Your task to perform on an android device: change keyboard looks Image 0: 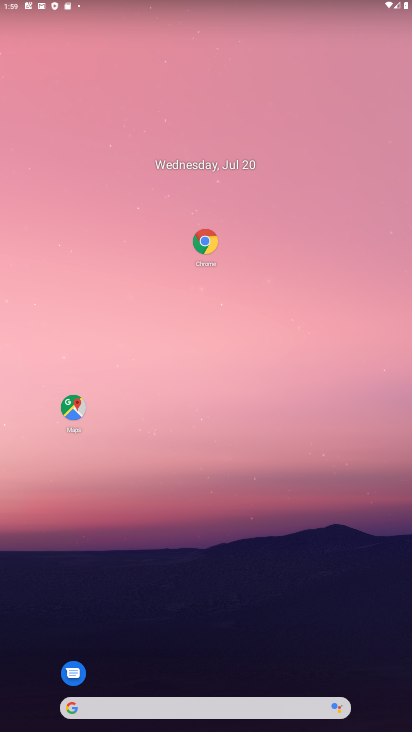
Step 0: drag from (188, 642) to (225, 76)
Your task to perform on an android device: change keyboard looks Image 1: 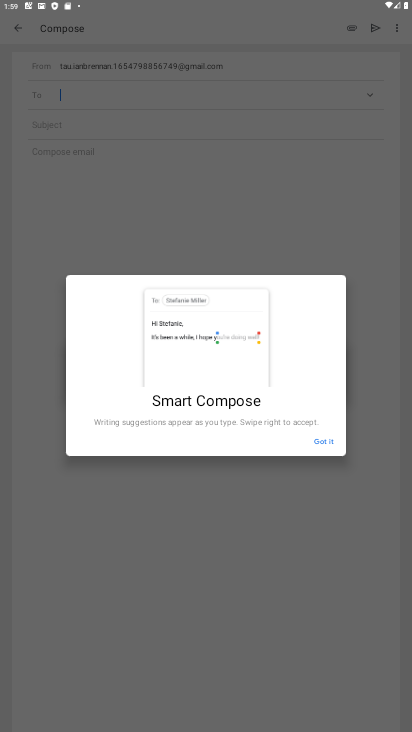
Step 1: press home button
Your task to perform on an android device: change keyboard looks Image 2: 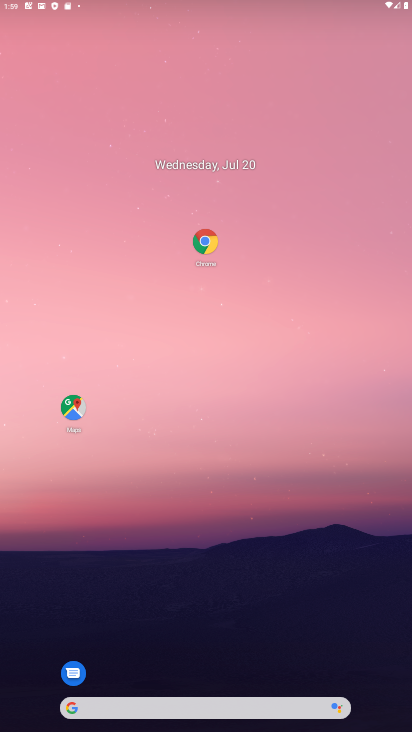
Step 2: drag from (240, 635) to (250, 68)
Your task to perform on an android device: change keyboard looks Image 3: 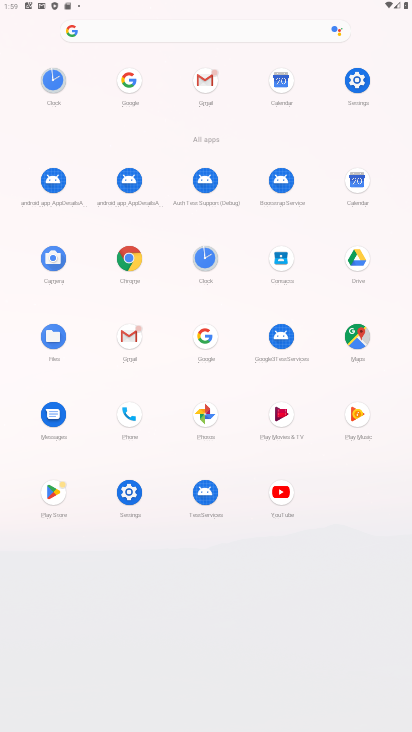
Step 3: click (354, 79)
Your task to perform on an android device: change keyboard looks Image 4: 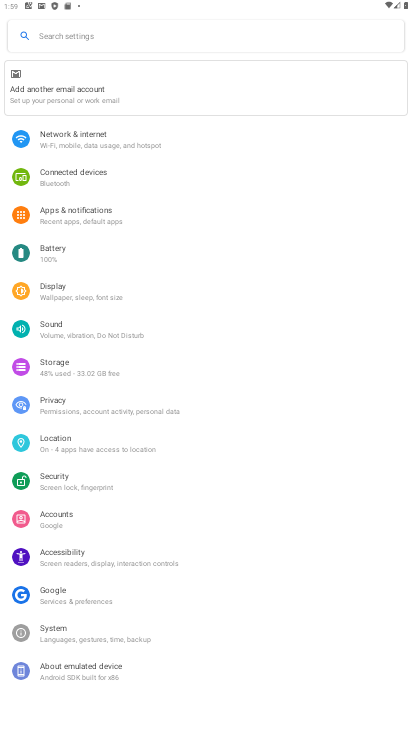
Step 4: click (36, 644)
Your task to perform on an android device: change keyboard looks Image 5: 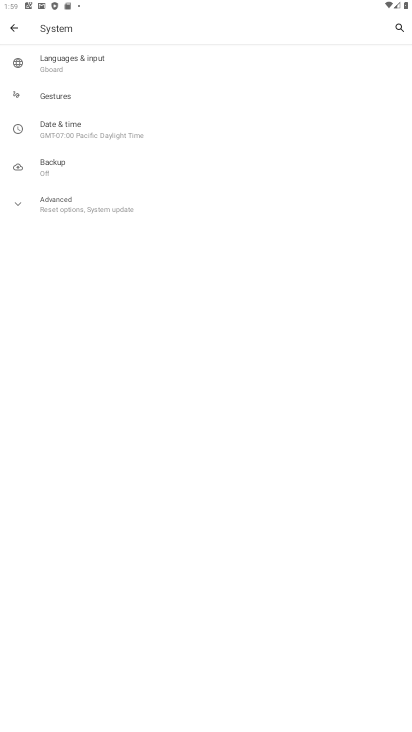
Step 5: click (77, 64)
Your task to perform on an android device: change keyboard looks Image 6: 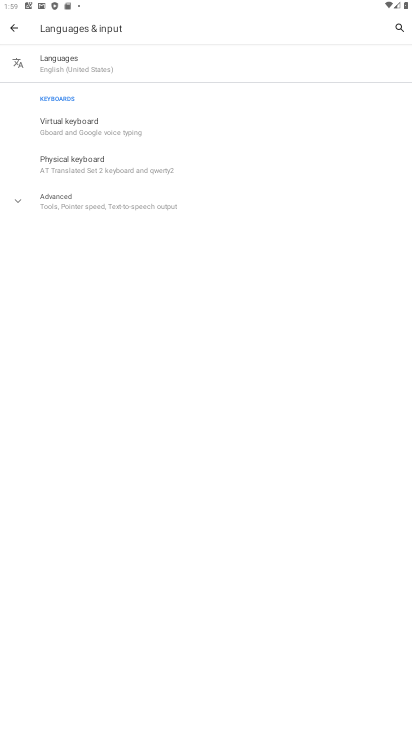
Step 6: click (79, 123)
Your task to perform on an android device: change keyboard looks Image 7: 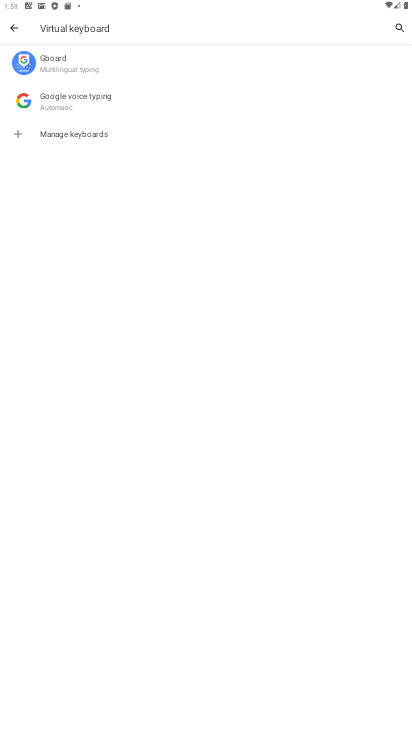
Step 7: click (60, 62)
Your task to perform on an android device: change keyboard looks Image 8: 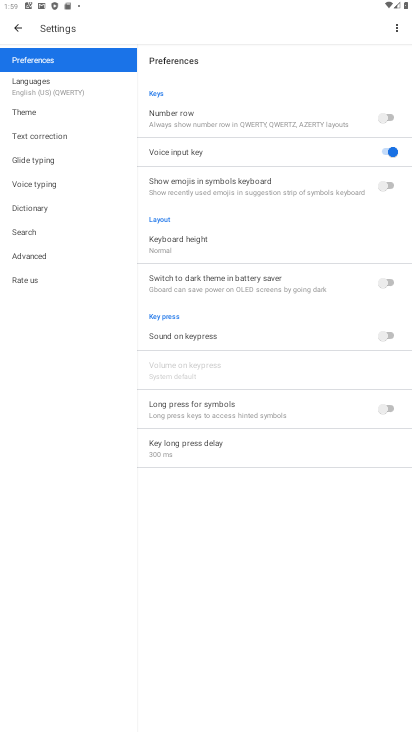
Step 8: click (35, 109)
Your task to perform on an android device: change keyboard looks Image 9: 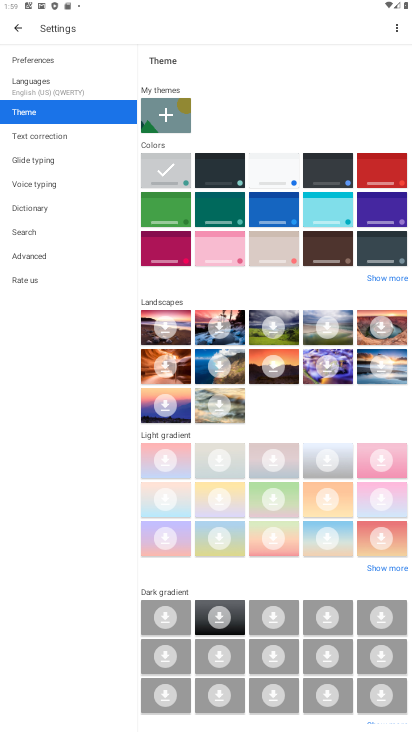
Step 9: click (214, 167)
Your task to perform on an android device: change keyboard looks Image 10: 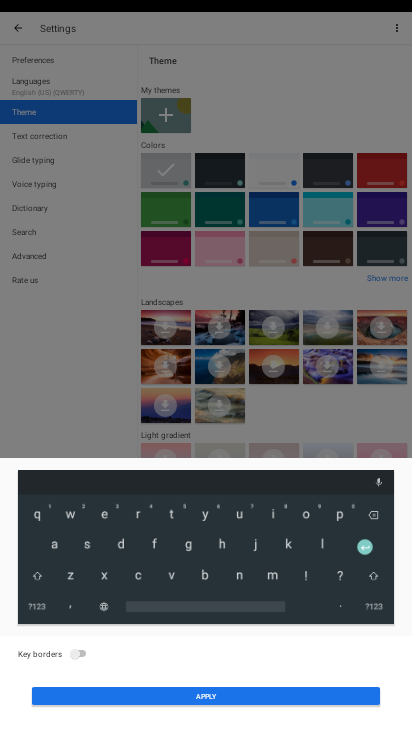
Step 10: click (211, 691)
Your task to perform on an android device: change keyboard looks Image 11: 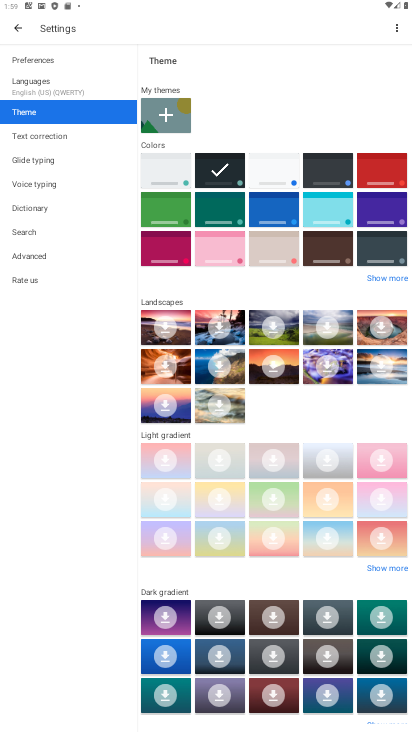
Step 11: task complete